Your task to perform on an android device: turn on translation in the chrome app Image 0: 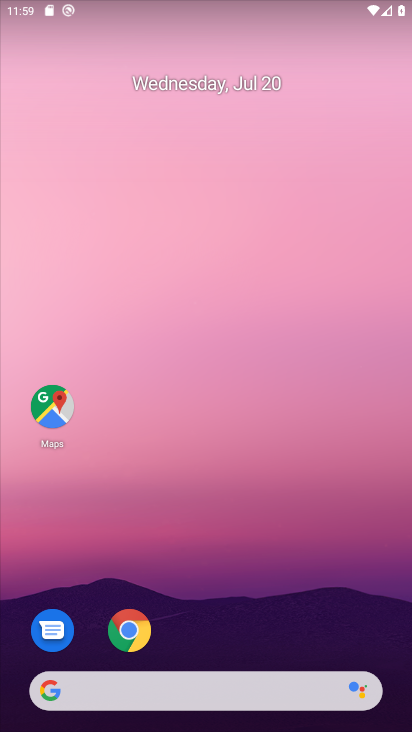
Step 0: drag from (175, 646) to (235, 229)
Your task to perform on an android device: turn on translation in the chrome app Image 1: 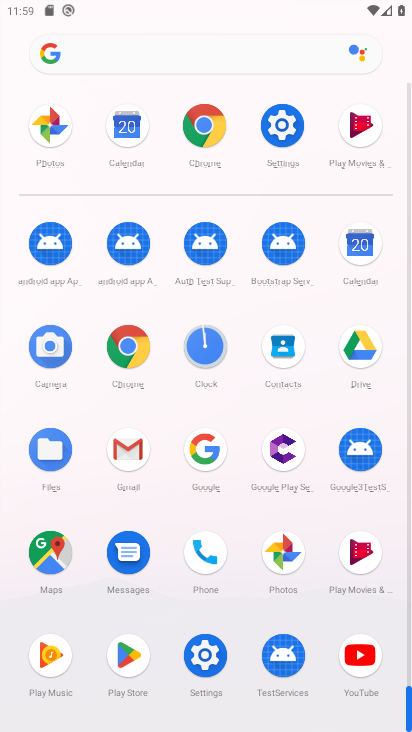
Step 1: click (117, 349)
Your task to perform on an android device: turn on translation in the chrome app Image 2: 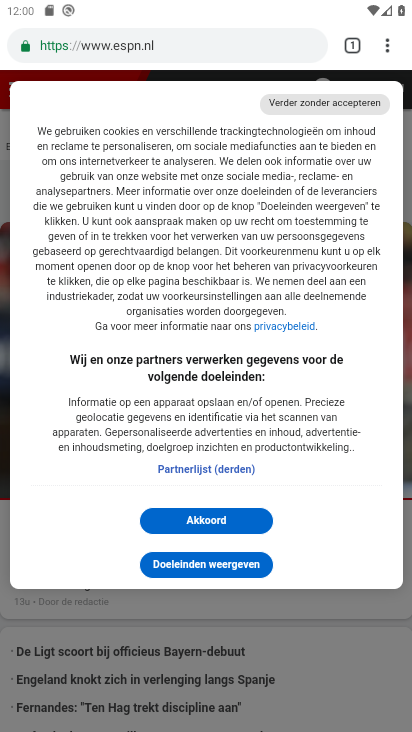
Step 2: click (382, 45)
Your task to perform on an android device: turn on translation in the chrome app Image 3: 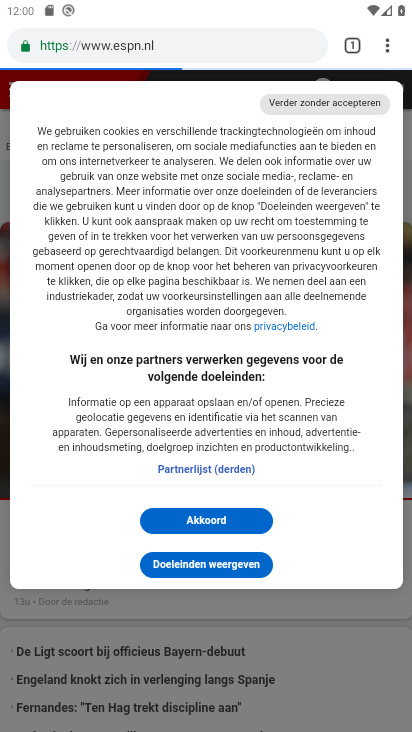
Step 3: drag from (388, 56) to (229, 551)
Your task to perform on an android device: turn on translation in the chrome app Image 4: 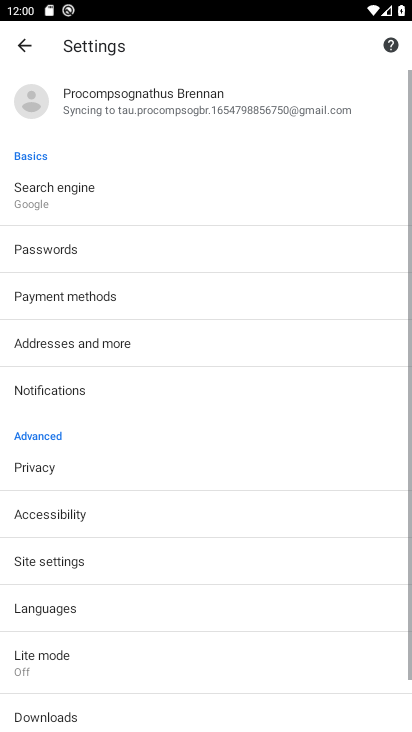
Step 4: drag from (221, 531) to (224, 129)
Your task to perform on an android device: turn on translation in the chrome app Image 5: 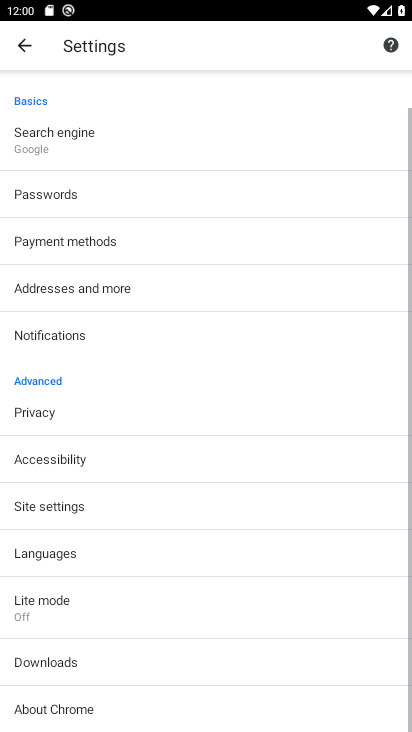
Step 5: click (61, 552)
Your task to perform on an android device: turn on translation in the chrome app Image 6: 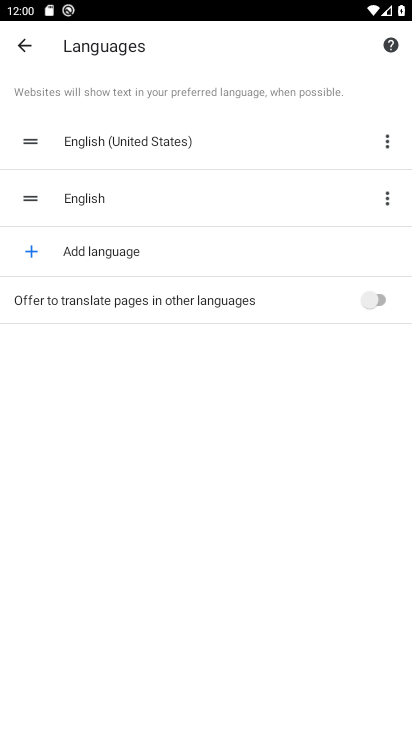
Step 6: click (300, 307)
Your task to perform on an android device: turn on translation in the chrome app Image 7: 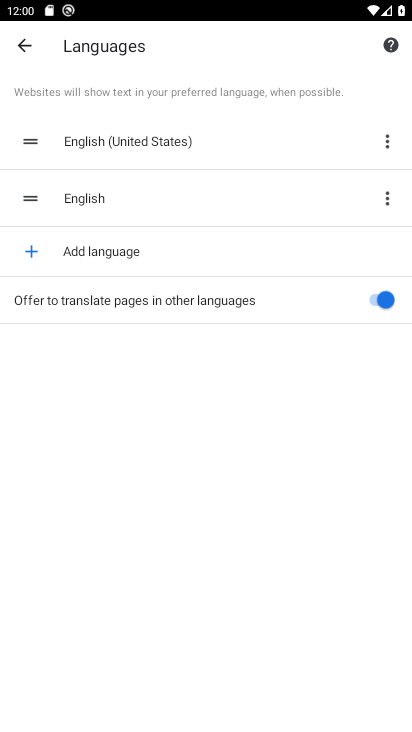
Step 7: task complete